Your task to perform on an android device: Open the web browser Image 0: 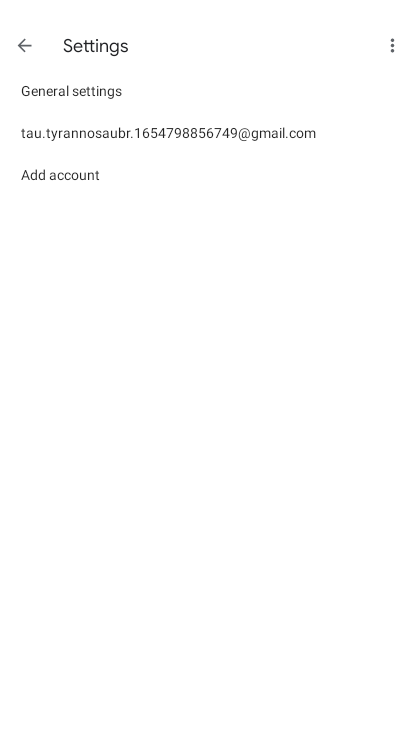
Step 0: press home button
Your task to perform on an android device: Open the web browser Image 1: 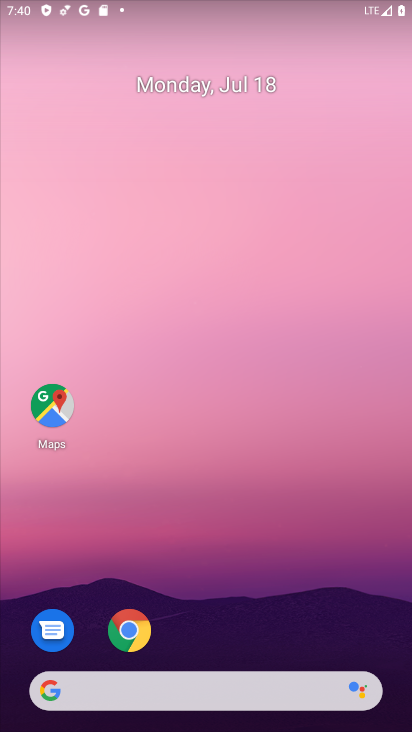
Step 1: drag from (66, 646) to (309, 31)
Your task to perform on an android device: Open the web browser Image 2: 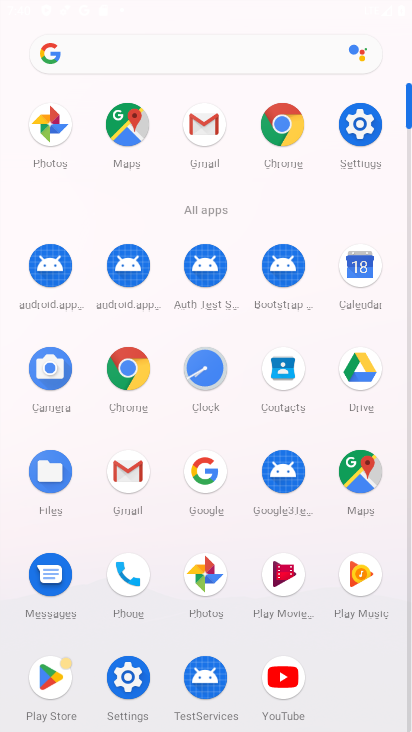
Step 2: click (286, 128)
Your task to perform on an android device: Open the web browser Image 3: 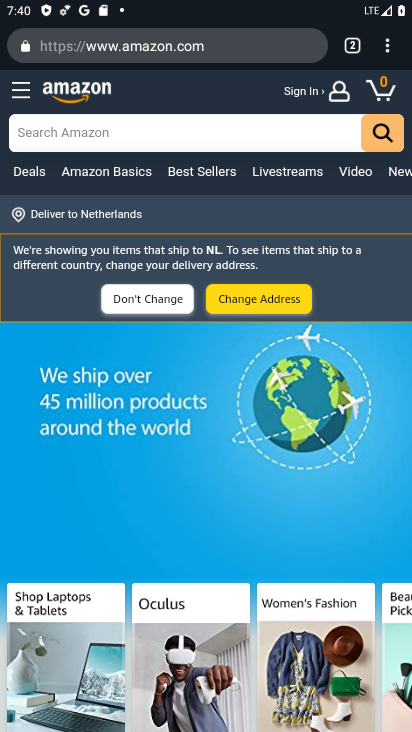
Step 3: task complete